Your task to perform on an android device: change the clock style Image 0: 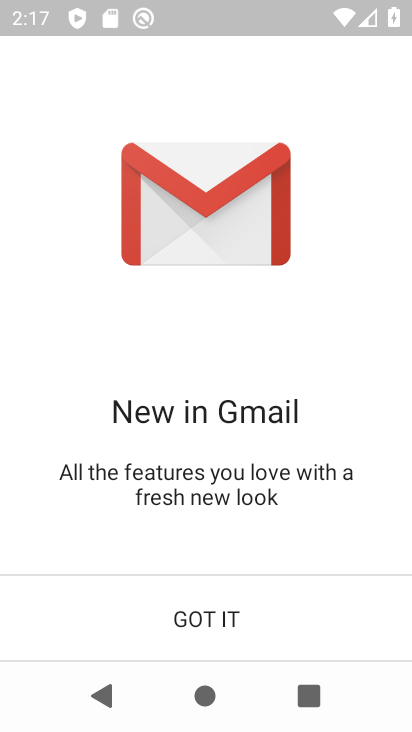
Step 0: press home button
Your task to perform on an android device: change the clock style Image 1: 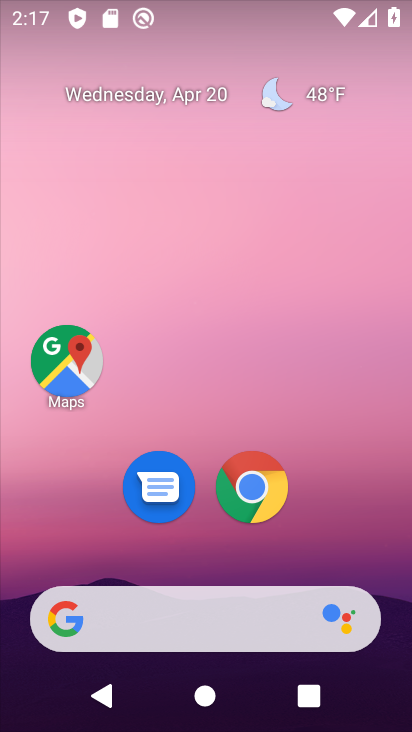
Step 1: drag from (211, 581) to (220, 207)
Your task to perform on an android device: change the clock style Image 2: 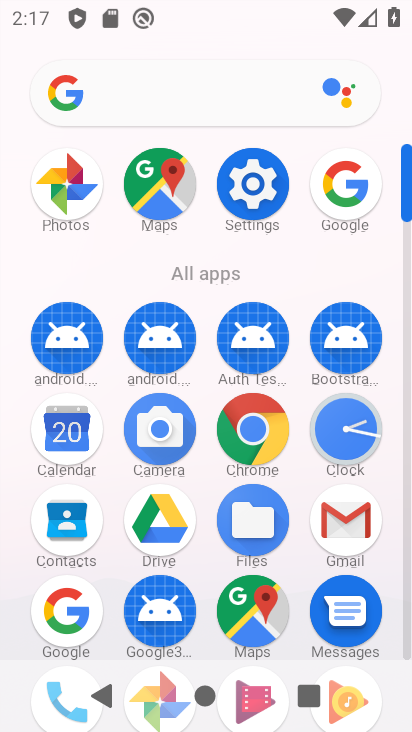
Step 2: click (355, 428)
Your task to perform on an android device: change the clock style Image 3: 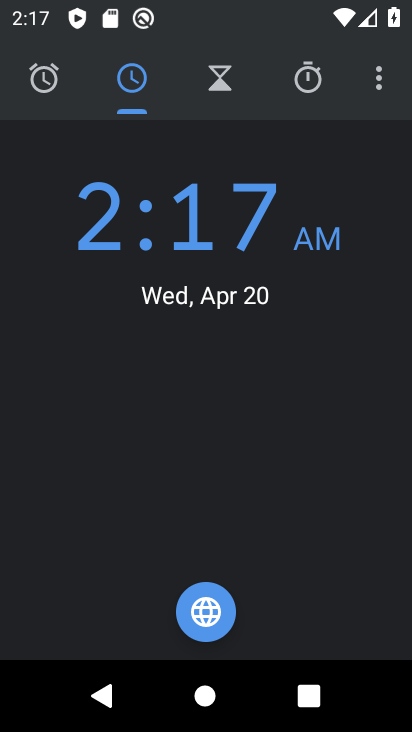
Step 3: click (383, 81)
Your task to perform on an android device: change the clock style Image 4: 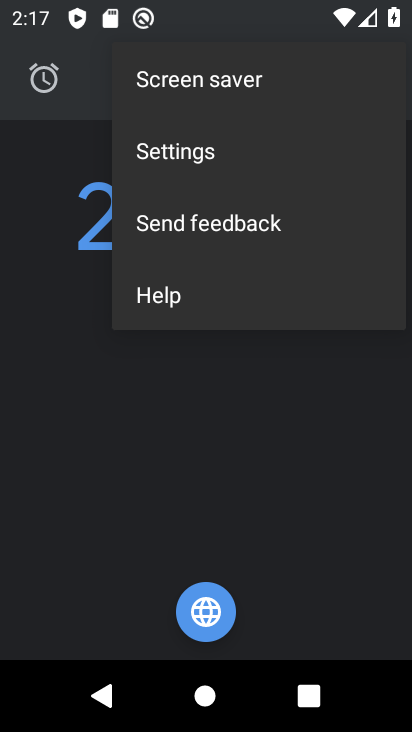
Step 4: click (156, 163)
Your task to perform on an android device: change the clock style Image 5: 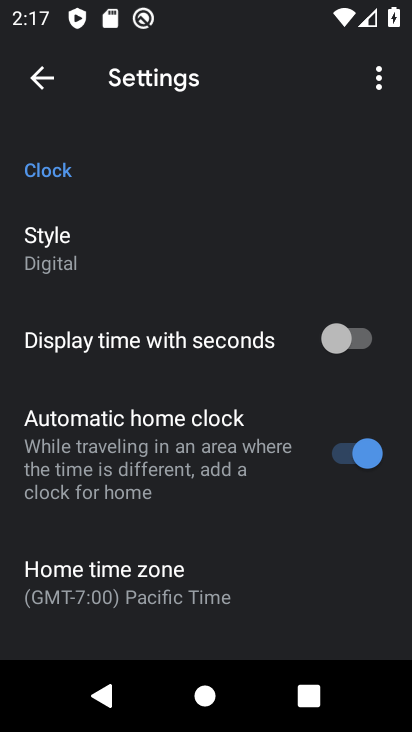
Step 5: click (65, 248)
Your task to perform on an android device: change the clock style Image 6: 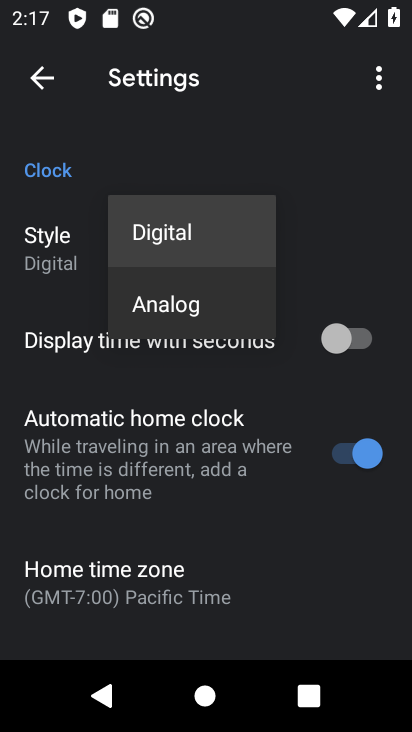
Step 6: click (175, 319)
Your task to perform on an android device: change the clock style Image 7: 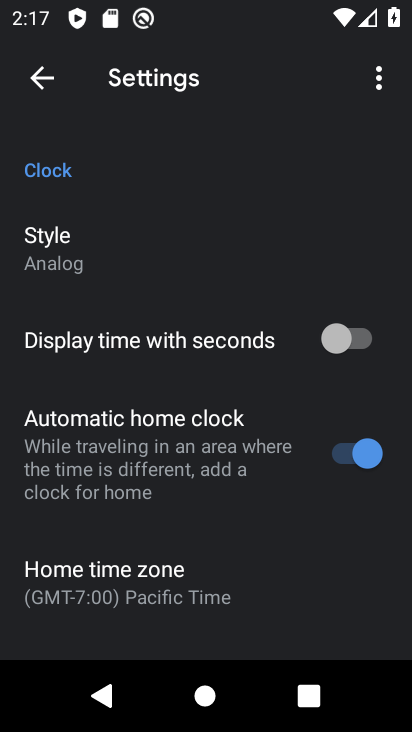
Step 7: task complete